Your task to perform on an android device: turn on priority inbox in the gmail app Image 0: 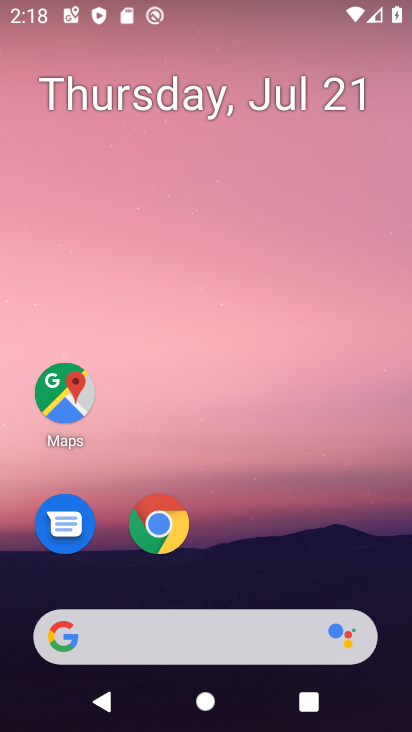
Step 0: drag from (242, 521) to (257, 50)
Your task to perform on an android device: turn on priority inbox in the gmail app Image 1: 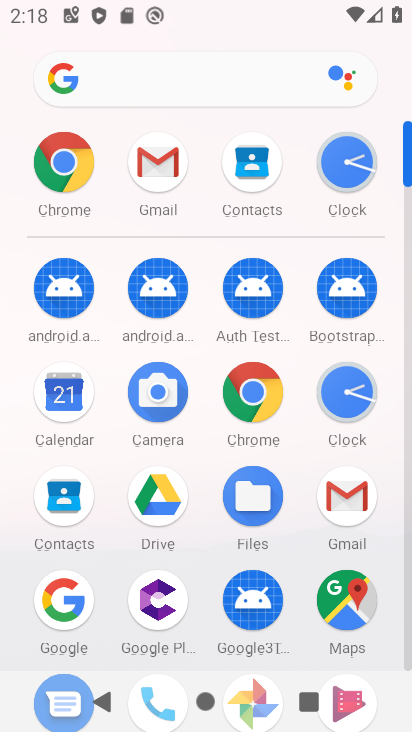
Step 1: click (164, 166)
Your task to perform on an android device: turn on priority inbox in the gmail app Image 2: 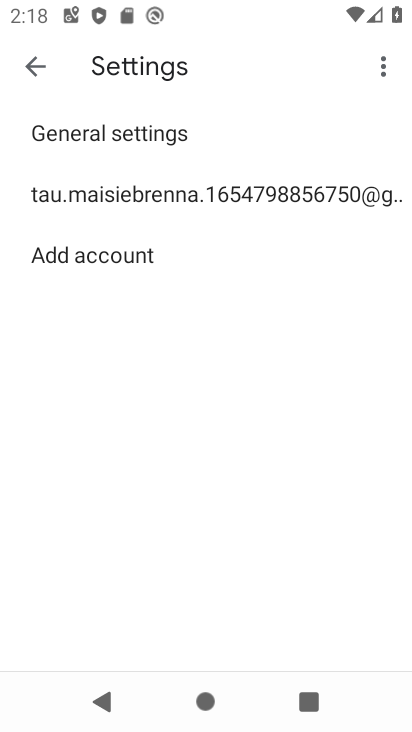
Step 2: click (220, 190)
Your task to perform on an android device: turn on priority inbox in the gmail app Image 3: 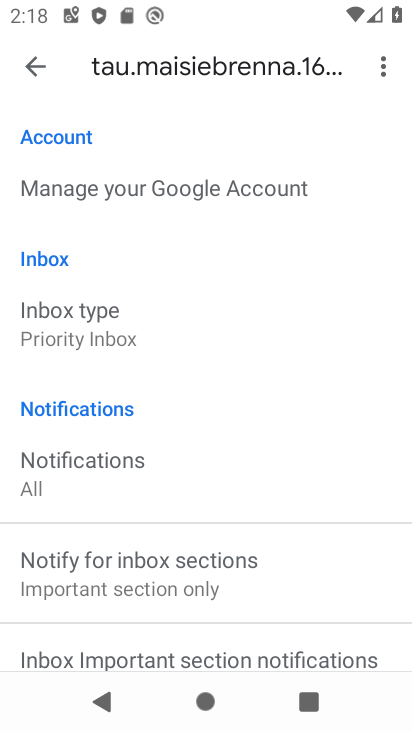
Step 3: click (103, 324)
Your task to perform on an android device: turn on priority inbox in the gmail app Image 4: 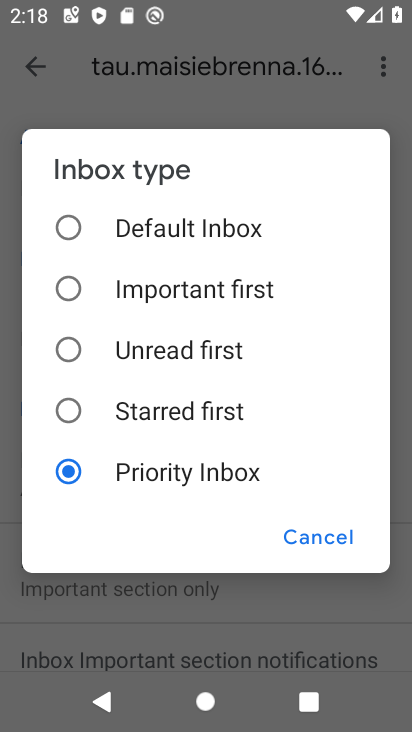
Step 4: click (305, 531)
Your task to perform on an android device: turn on priority inbox in the gmail app Image 5: 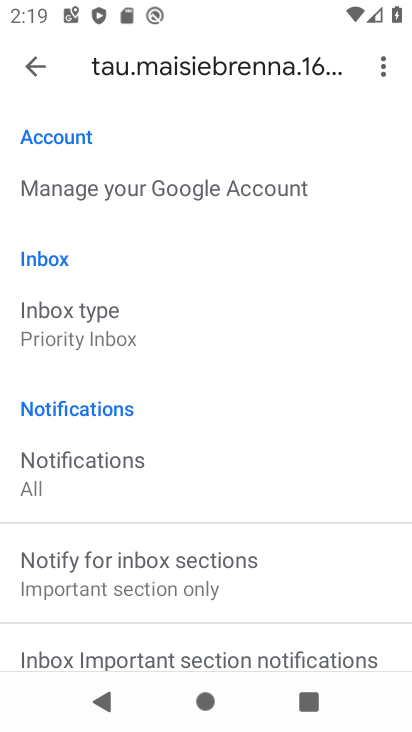
Step 5: task complete